Your task to perform on an android device: Go to settings Image 0: 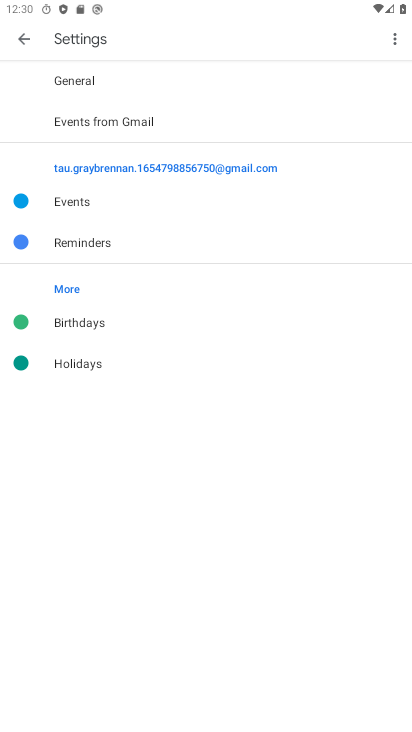
Step 0: press home button
Your task to perform on an android device: Go to settings Image 1: 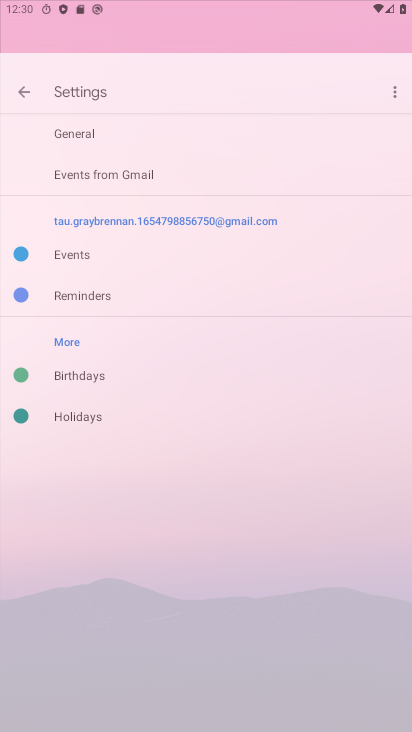
Step 1: drag from (251, 608) to (232, 90)
Your task to perform on an android device: Go to settings Image 2: 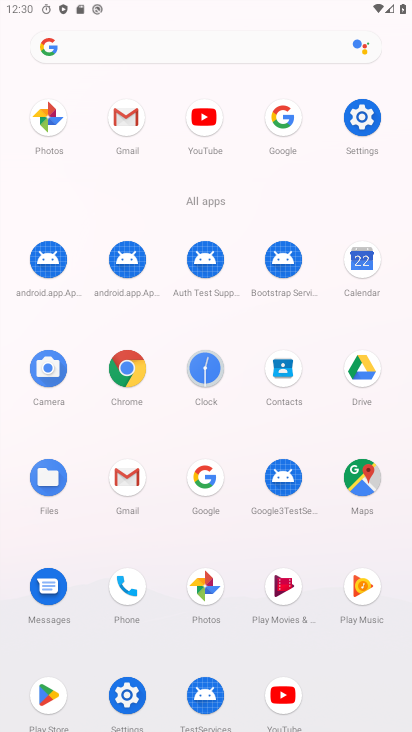
Step 2: click (353, 115)
Your task to perform on an android device: Go to settings Image 3: 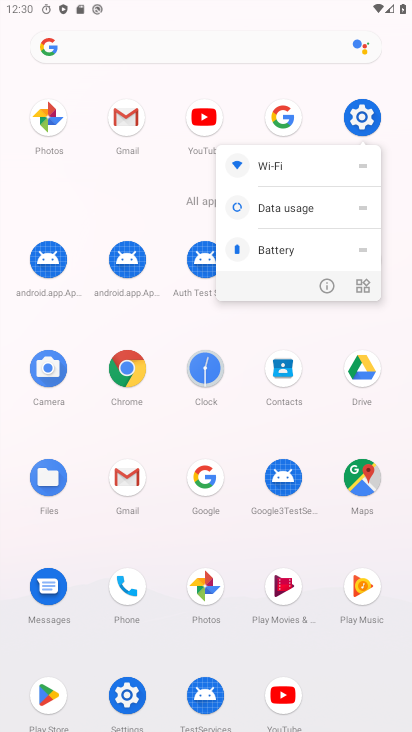
Step 3: click (330, 295)
Your task to perform on an android device: Go to settings Image 4: 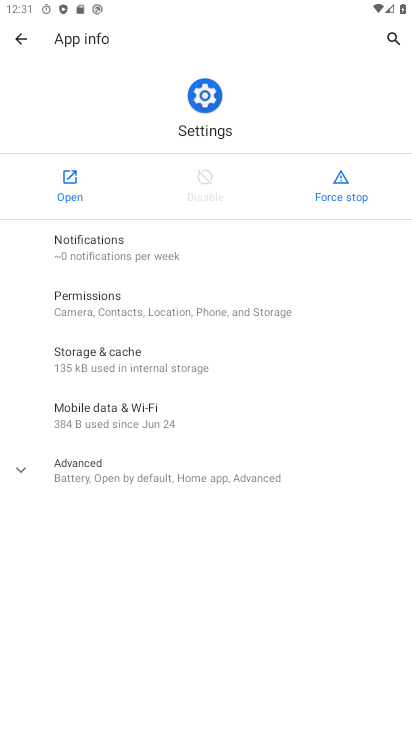
Step 4: click (70, 186)
Your task to perform on an android device: Go to settings Image 5: 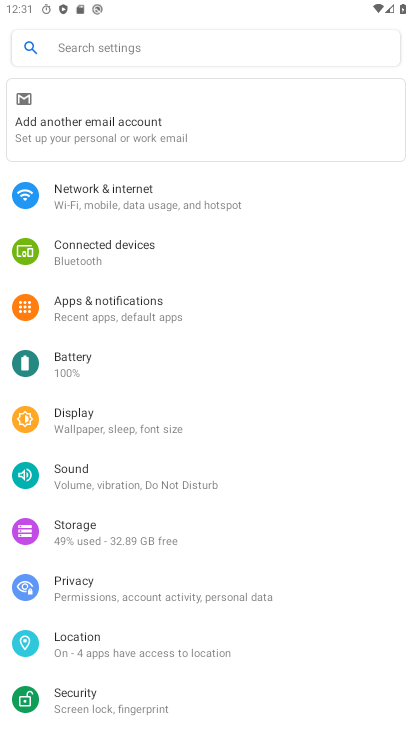
Step 5: task complete